Your task to perform on an android device: Open the map Image 0: 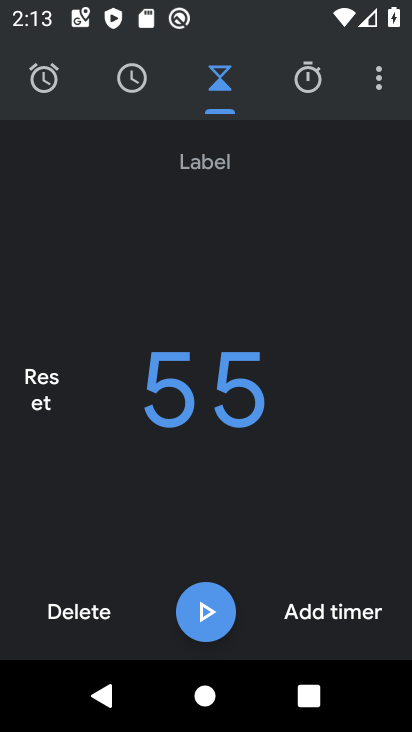
Step 0: press home button
Your task to perform on an android device: Open the map Image 1: 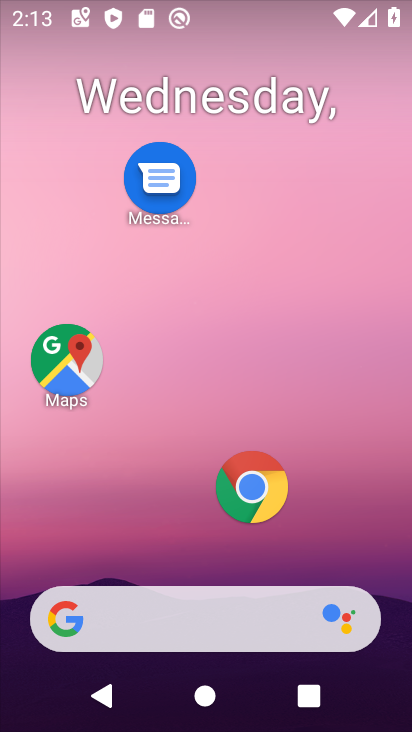
Step 1: click (68, 366)
Your task to perform on an android device: Open the map Image 2: 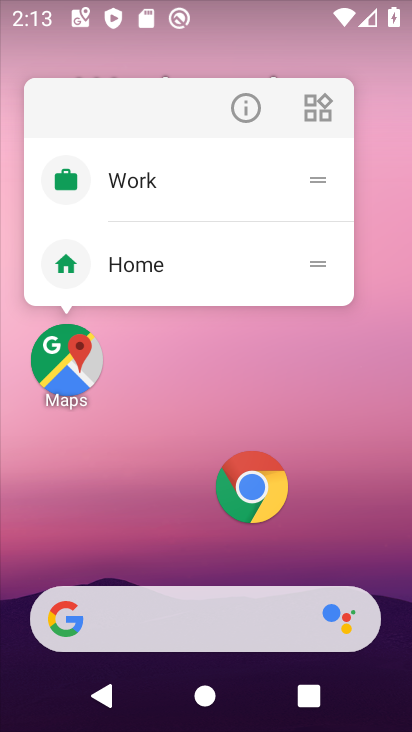
Step 2: click (66, 395)
Your task to perform on an android device: Open the map Image 3: 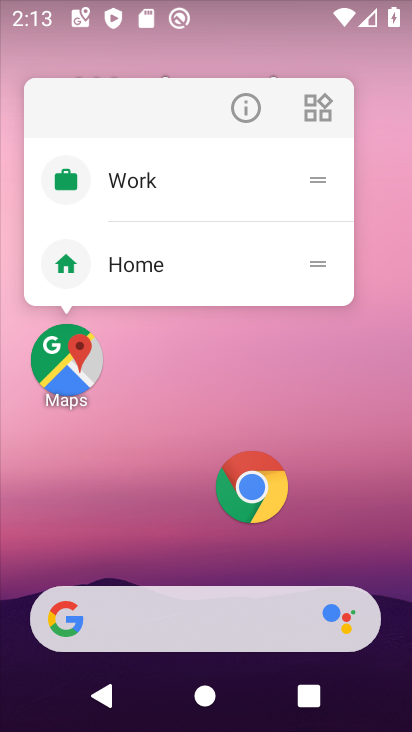
Step 3: click (69, 386)
Your task to perform on an android device: Open the map Image 4: 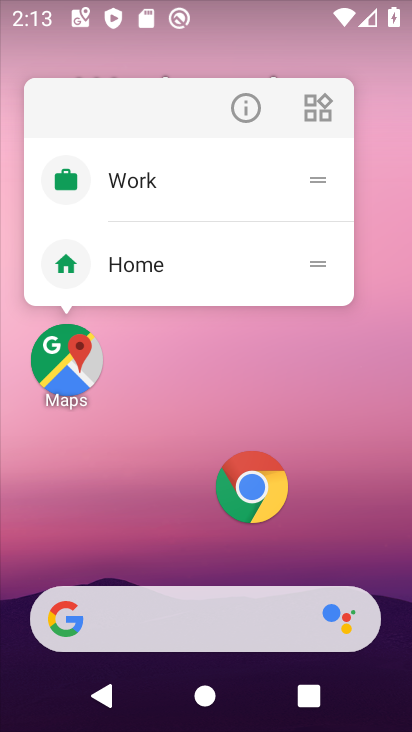
Step 4: click (70, 384)
Your task to perform on an android device: Open the map Image 5: 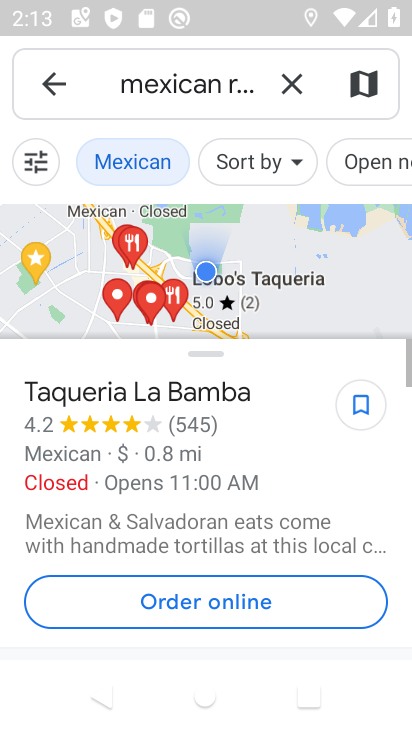
Step 5: click (54, 79)
Your task to perform on an android device: Open the map Image 6: 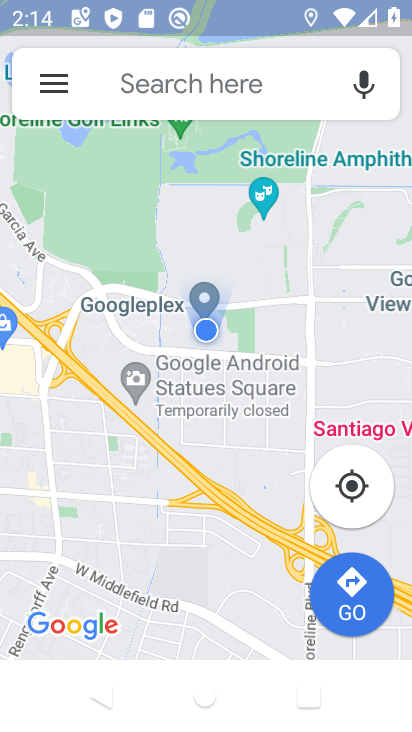
Step 6: task complete